Your task to perform on an android device: turn notification dots on Image 0: 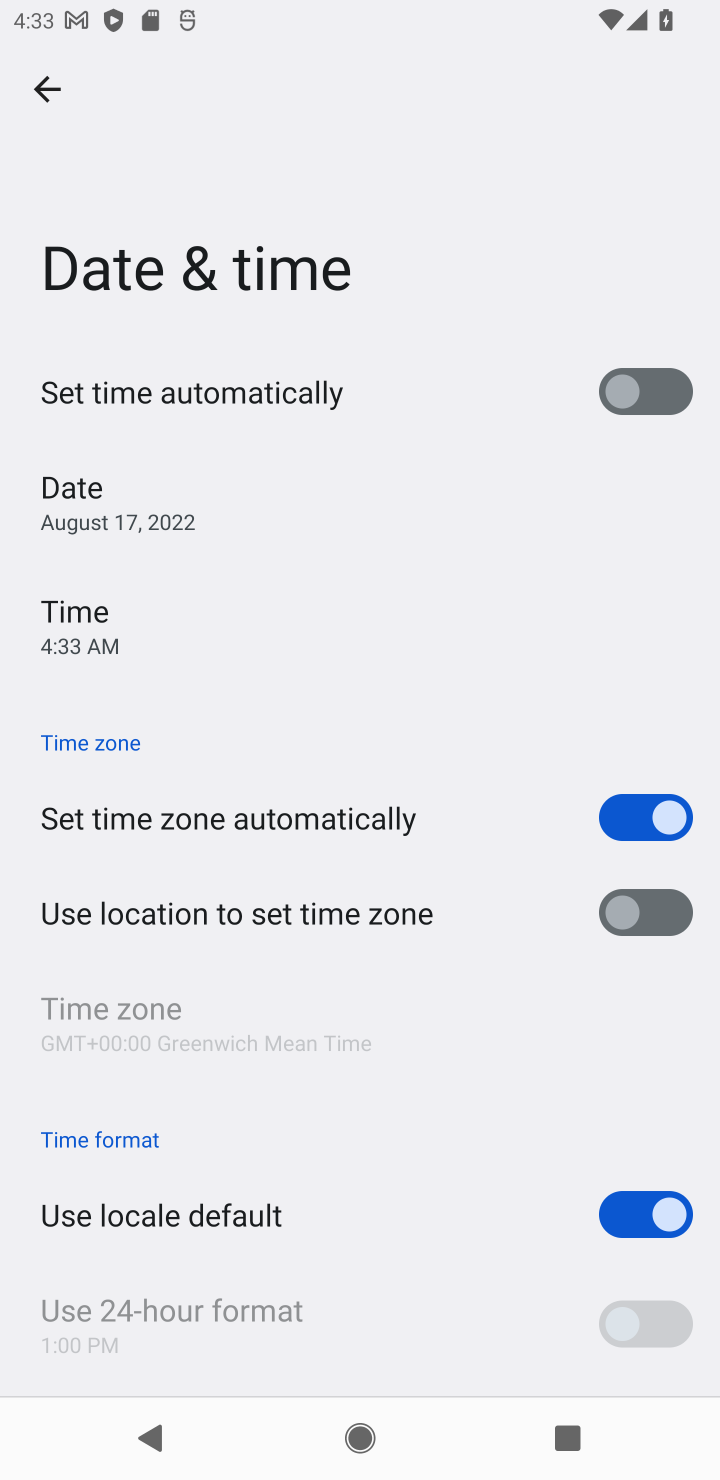
Step 0: press home button
Your task to perform on an android device: turn notification dots on Image 1: 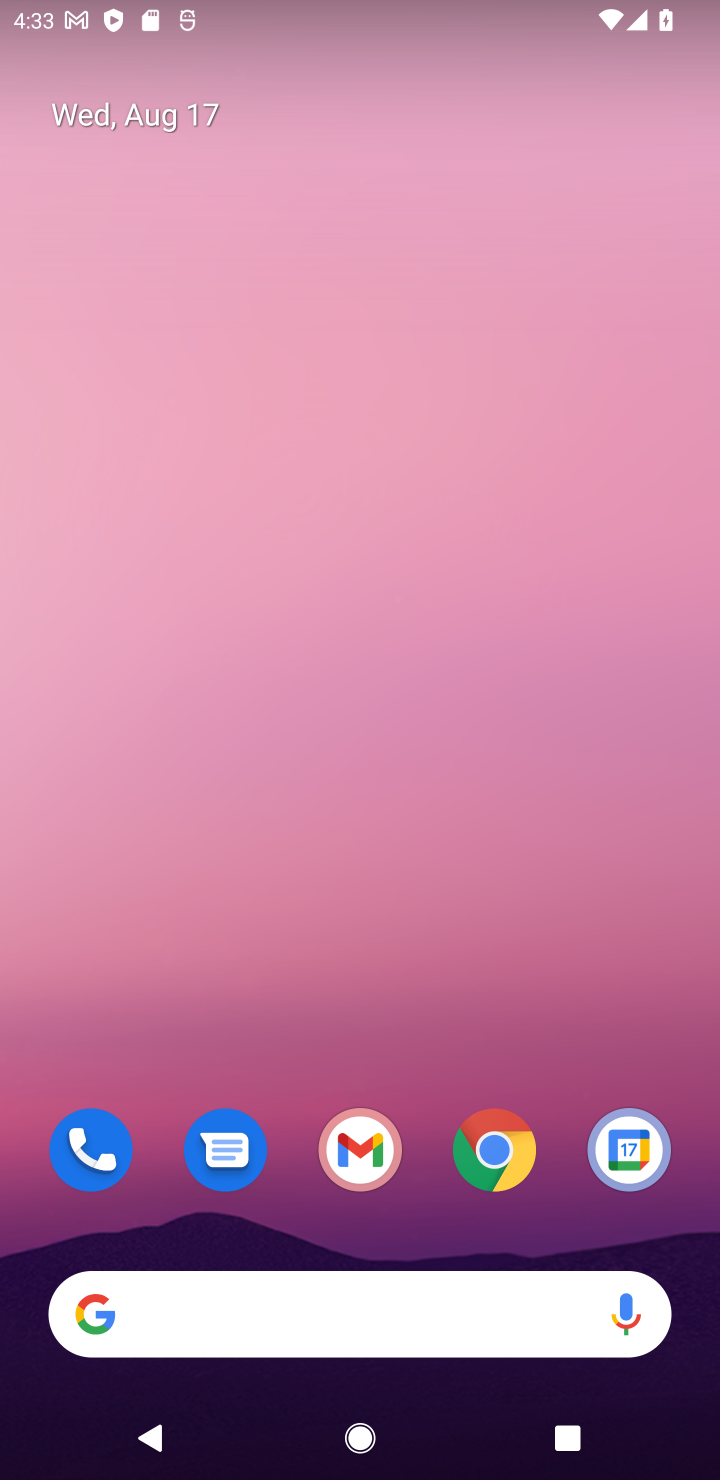
Step 1: drag from (684, 1268) to (354, 38)
Your task to perform on an android device: turn notification dots on Image 2: 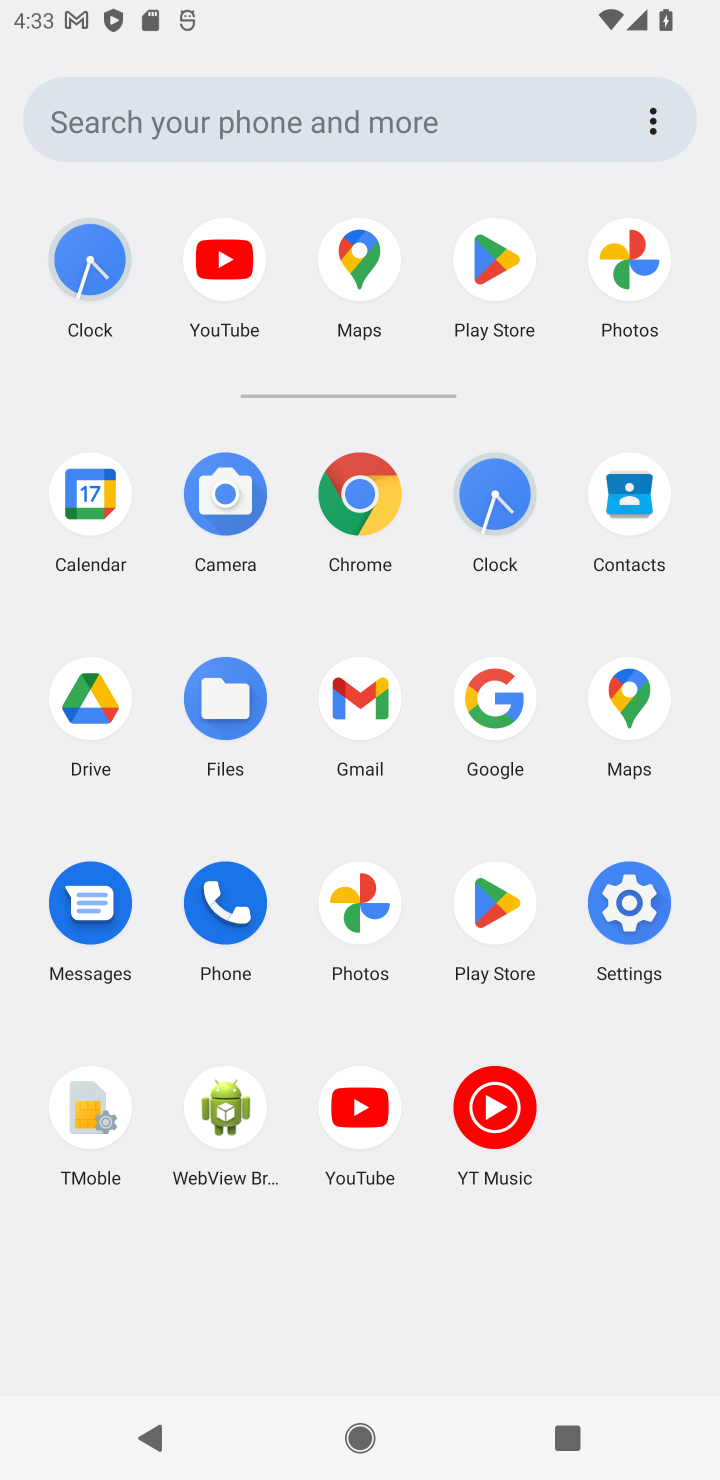
Step 2: click (604, 912)
Your task to perform on an android device: turn notification dots on Image 3: 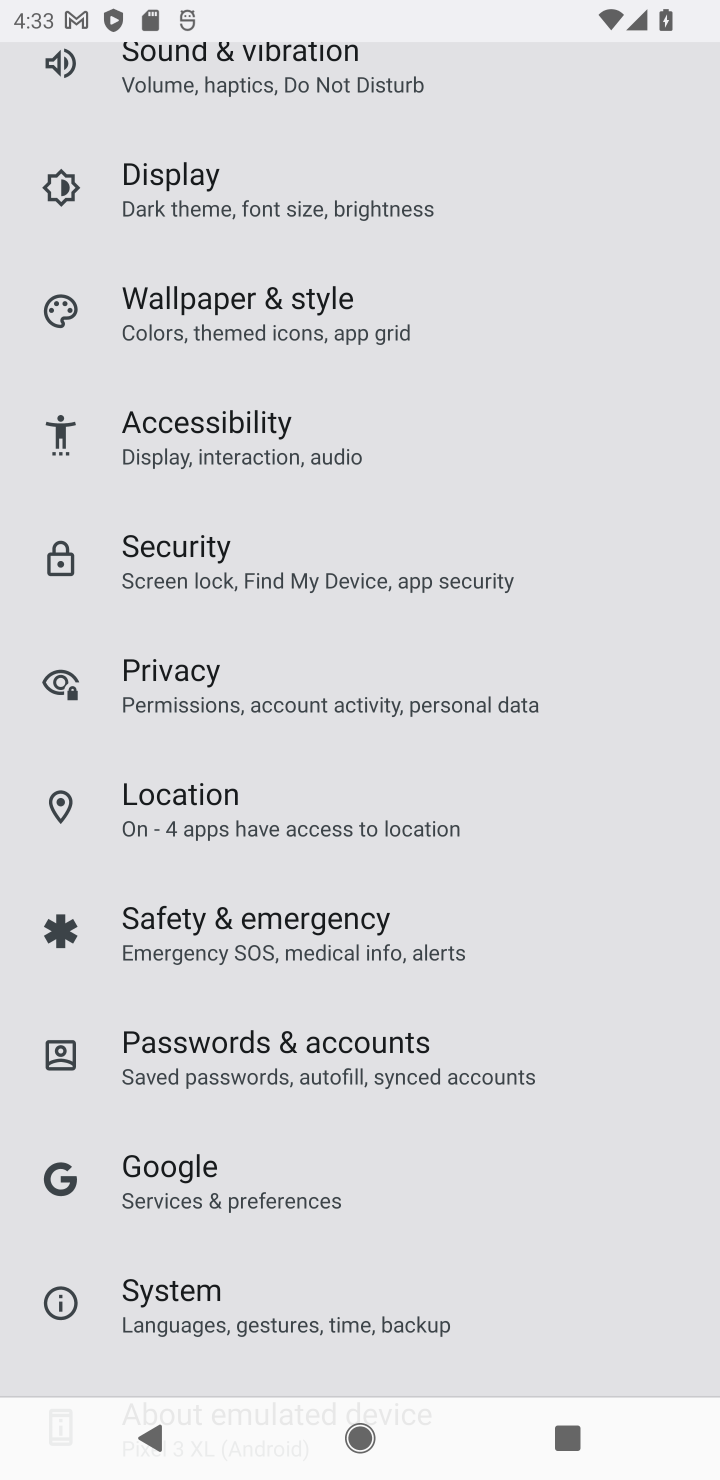
Step 3: drag from (306, 98) to (345, 1379)
Your task to perform on an android device: turn notification dots on Image 4: 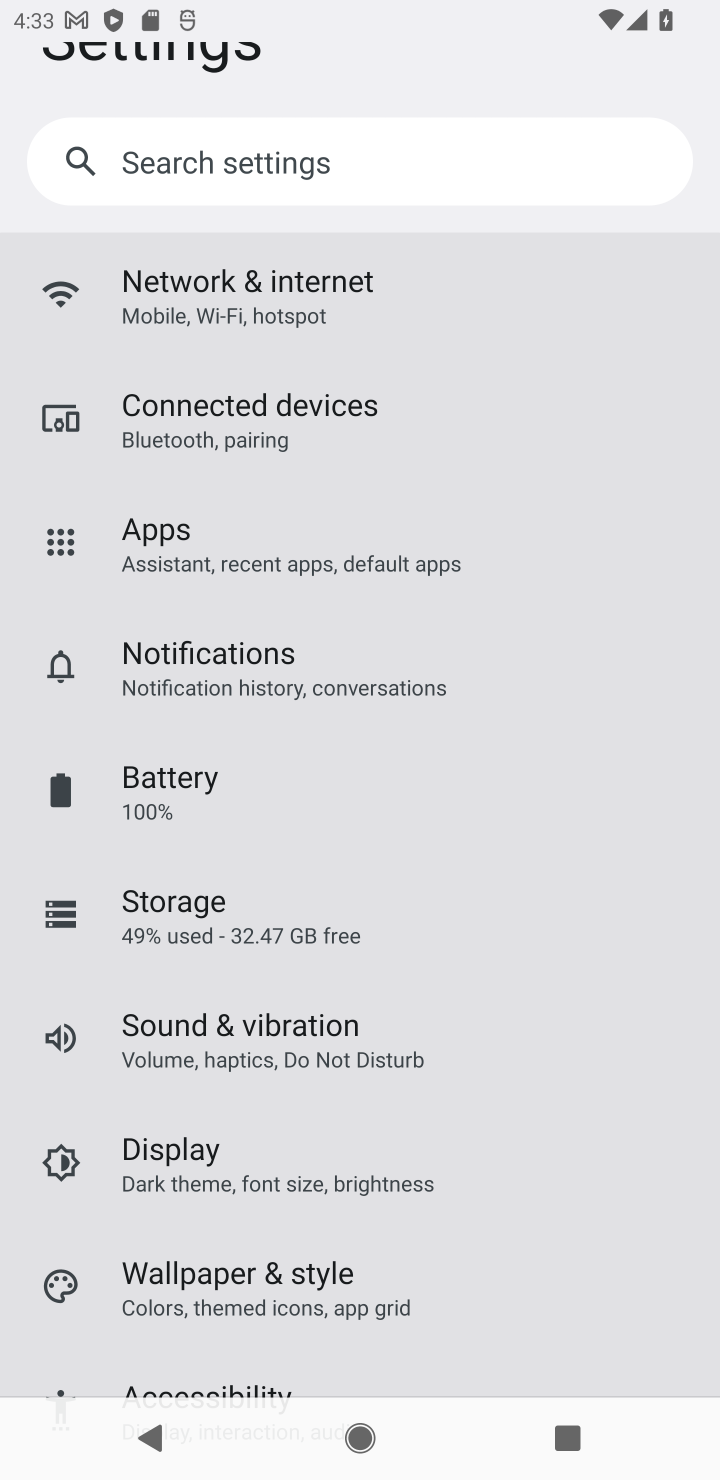
Step 4: click (313, 686)
Your task to perform on an android device: turn notification dots on Image 5: 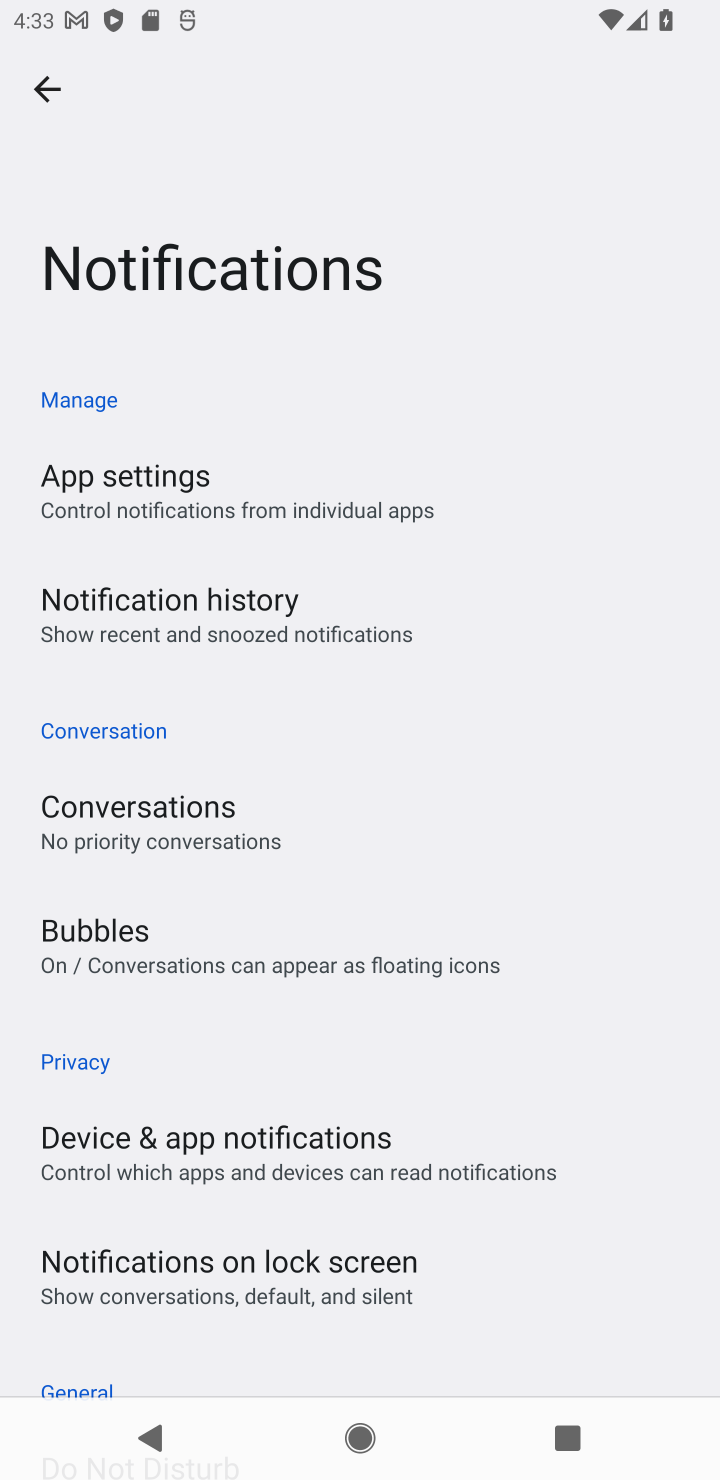
Step 5: task complete